Your task to perform on an android device: Do I have any events this weekend? Image 0: 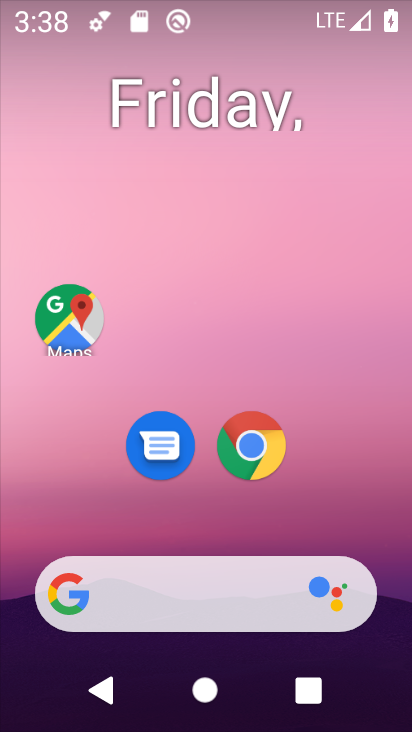
Step 0: drag from (398, 580) to (317, 129)
Your task to perform on an android device: Do I have any events this weekend? Image 1: 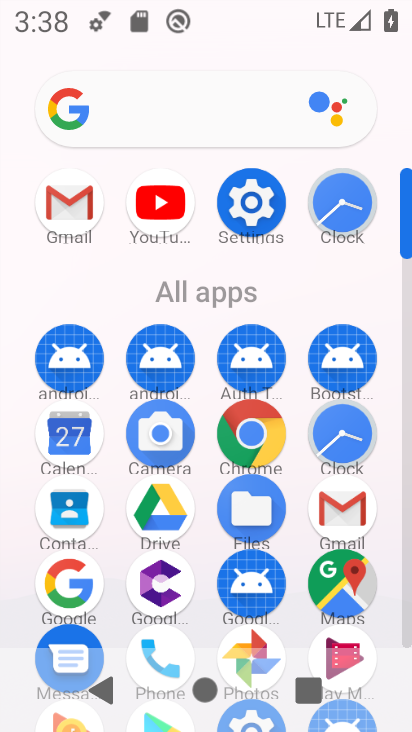
Step 1: click (75, 443)
Your task to perform on an android device: Do I have any events this weekend? Image 2: 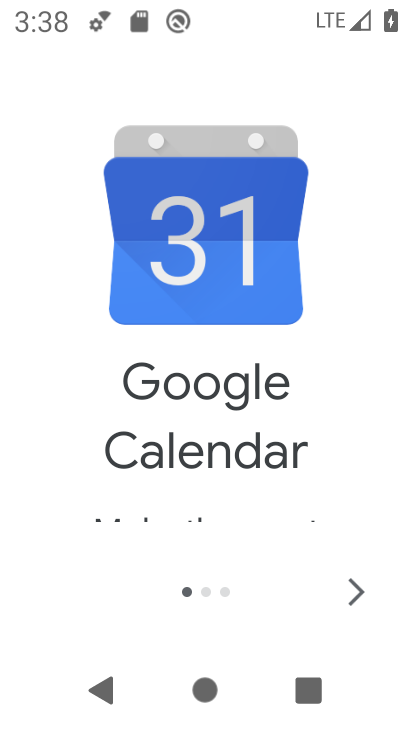
Step 2: click (362, 587)
Your task to perform on an android device: Do I have any events this weekend? Image 3: 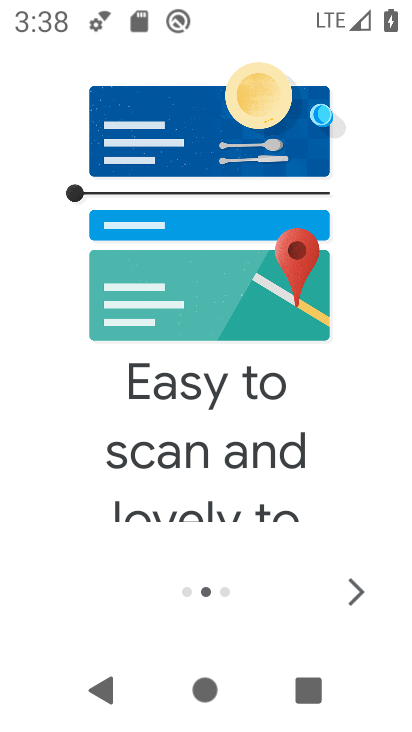
Step 3: click (362, 587)
Your task to perform on an android device: Do I have any events this weekend? Image 4: 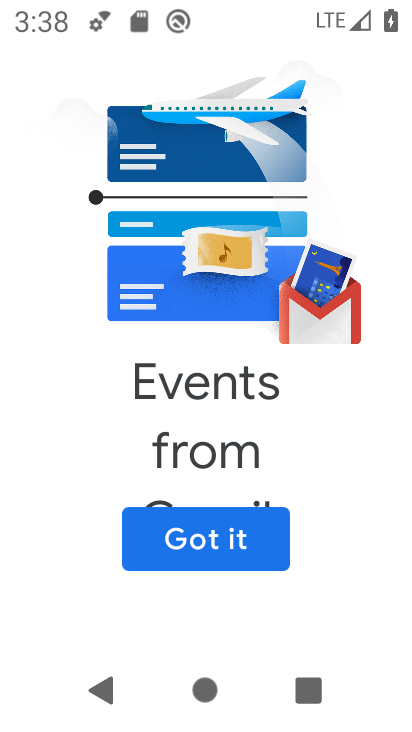
Step 4: click (244, 536)
Your task to perform on an android device: Do I have any events this weekend? Image 5: 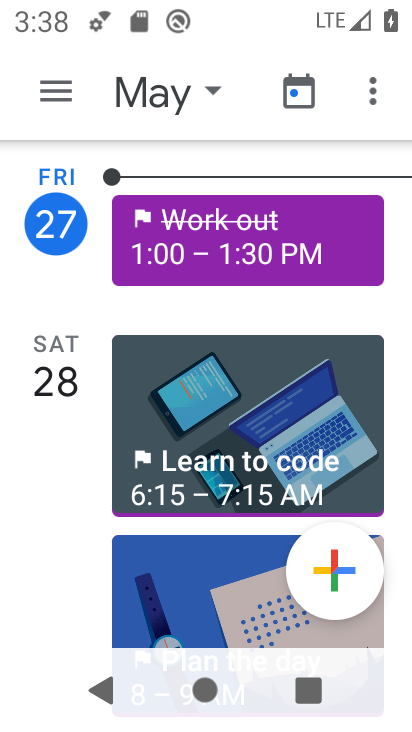
Step 5: click (193, 110)
Your task to perform on an android device: Do I have any events this weekend? Image 6: 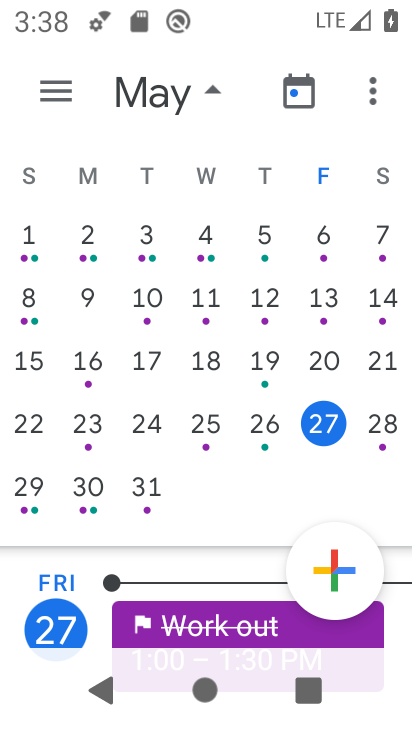
Step 6: click (57, 100)
Your task to perform on an android device: Do I have any events this weekend? Image 7: 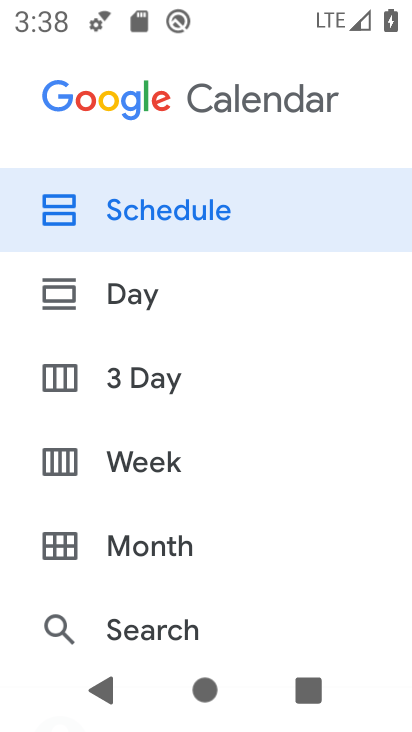
Step 7: click (141, 390)
Your task to perform on an android device: Do I have any events this weekend? Image 8: 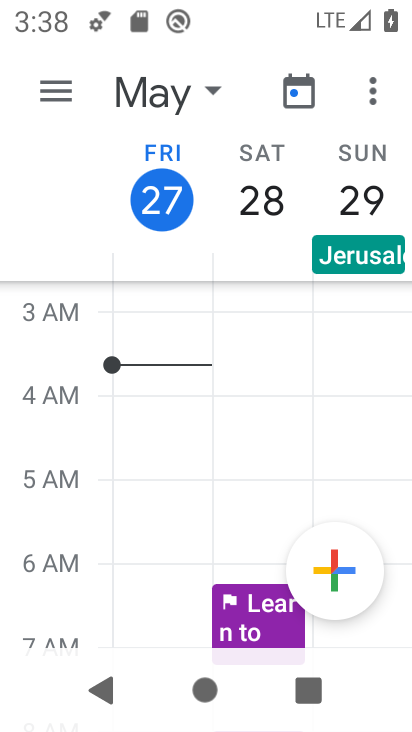
Step 8: click (199, 102)
Your task to perform on an android device: Do I have any events this weekend? Image 9: 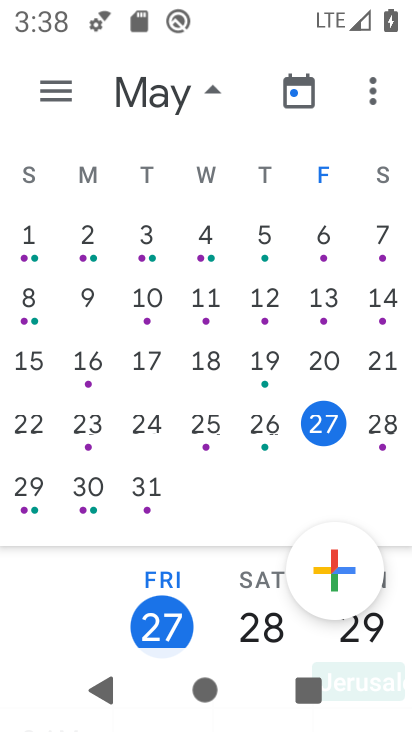
Step 9: click (378, 430)
Your task to perform on an android device: Do I have any events this weekend? Image 10: 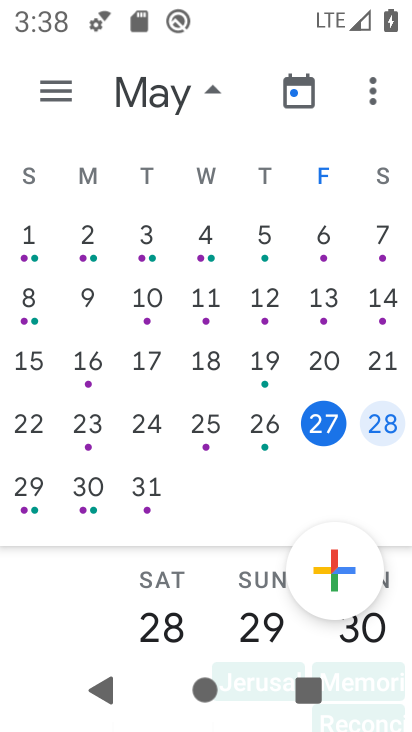
Step 10: click (162, 96)
Your task to perform on an android device: Do I have any events this weekend? Image 11: 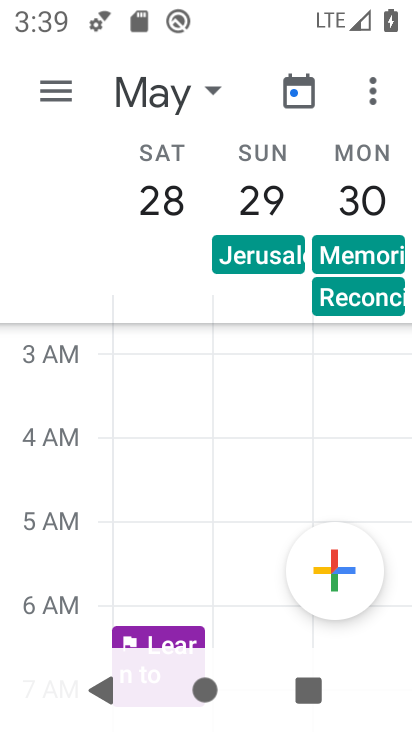
Step 11: task complete